Your task to perform on an android device: open chrome and create a bookmark for the current page Image 0: 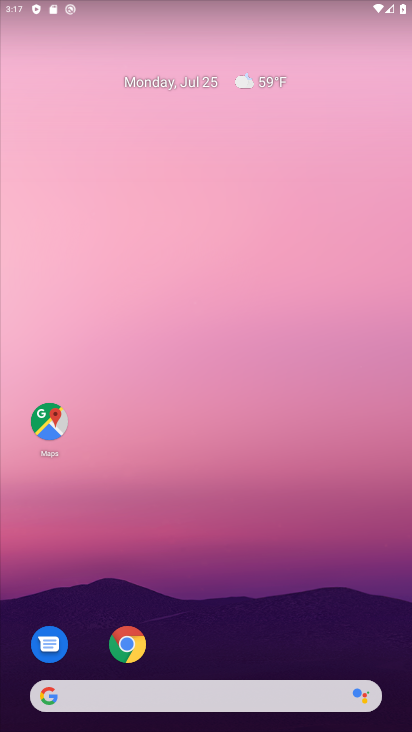
Step 0: click (126, 640)
Your task to perform on an android device: open chrome and create a bookmark for the current page Image 1: 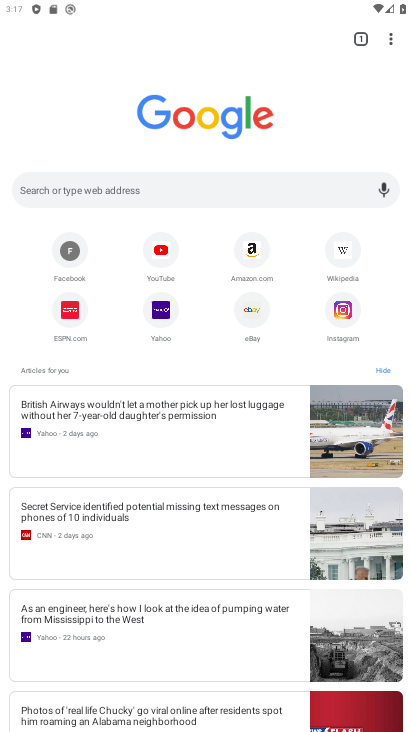
Step 1: click (386, 39)
Your task to perform on an android device: open chrome and create a bookmark for the current page Image 2: 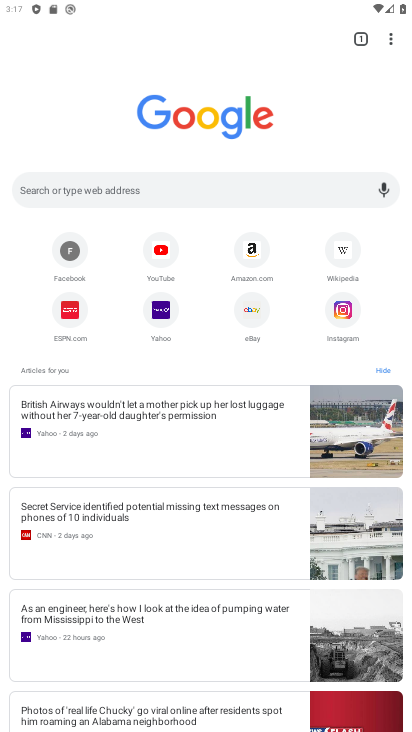
Step 2: click (389, 39)
Your task to perform on an android device: open chrome and create a bookmark for the current page Image 3: 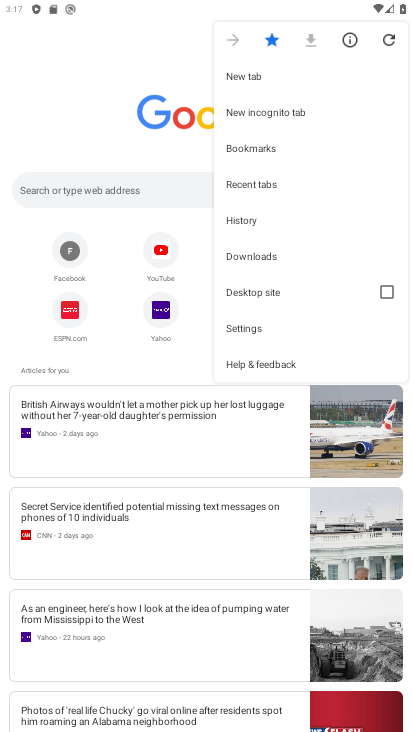
Step 3: task complete